Your task to perform on an android device: move a message to another label in the gmail app Image 0: 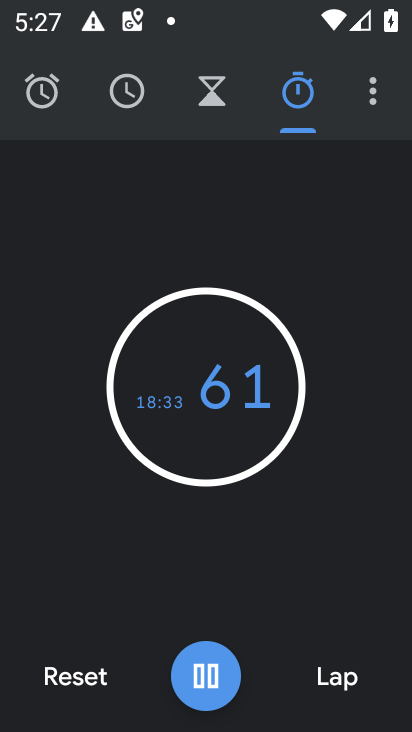
Step 0: press home button
Your task to perform on an android device: move a message to another label in the gmail app Image 1: 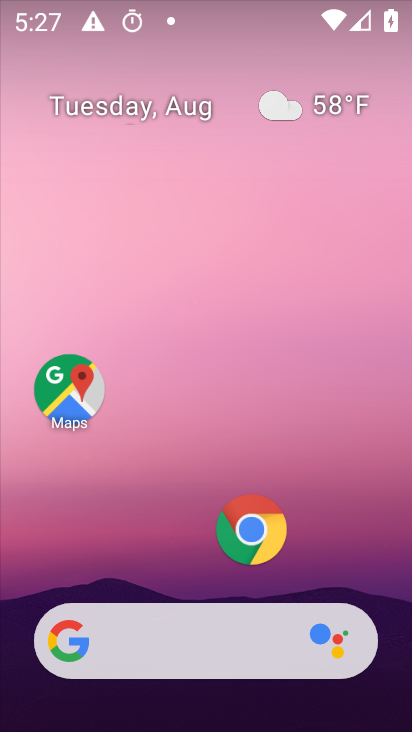
Step 1: drag from (187, 534) to (195, 180)
Your task to perform on an android device: move a message to another label in the gmail app Image 2: 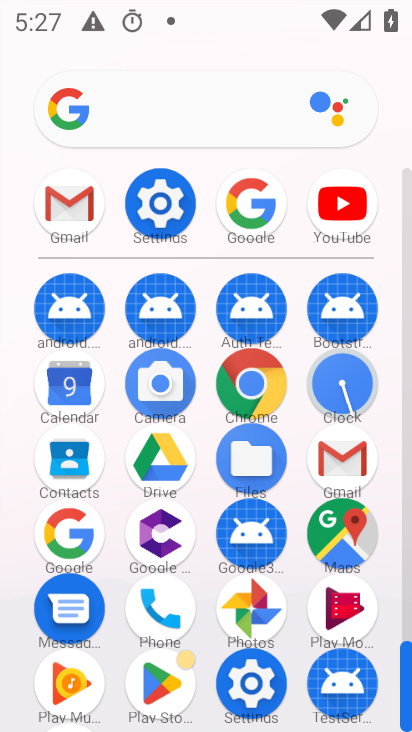
Step 2: click (53, 212)
Your task to perform on an android device: move a message to another label in the gmail app Image 3: 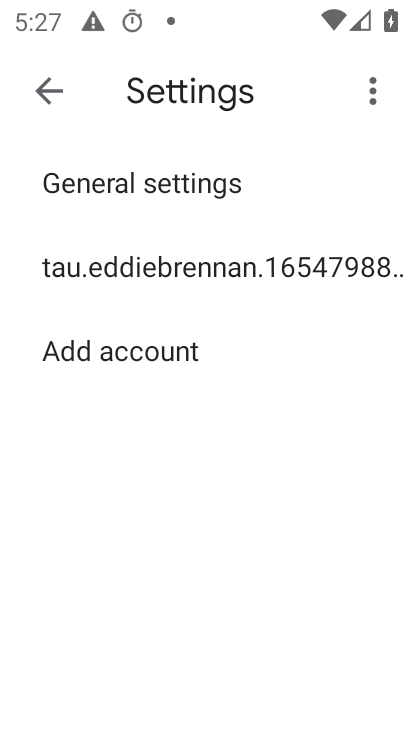
Step 3: click (44, 96)
Your task to perform on an android device: move a message to another label in the gmail app Image 4: 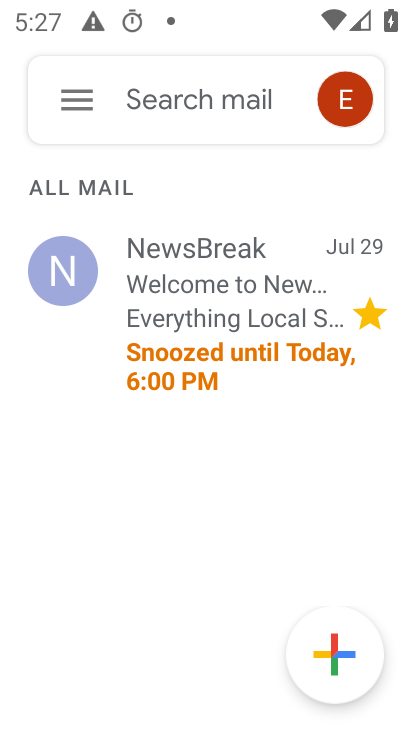
Step 4: click (167, 247)
Your task to perform on an android device: move a message to another label in the gmail app Image 5: 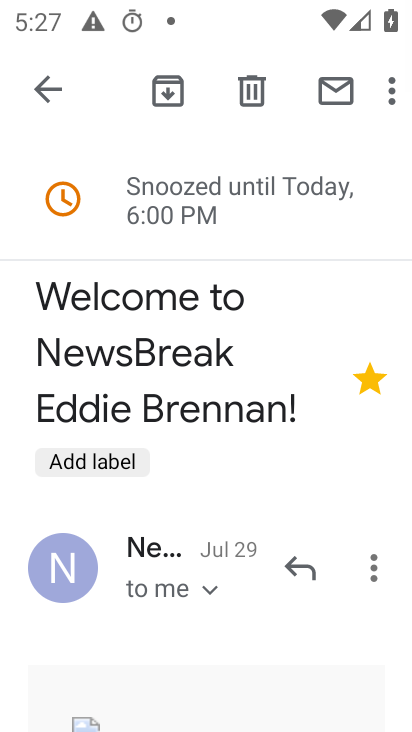
Step 5: click (389, 86)
Your task to perform on an android device: move a message to another label in the gmail app Image 6: 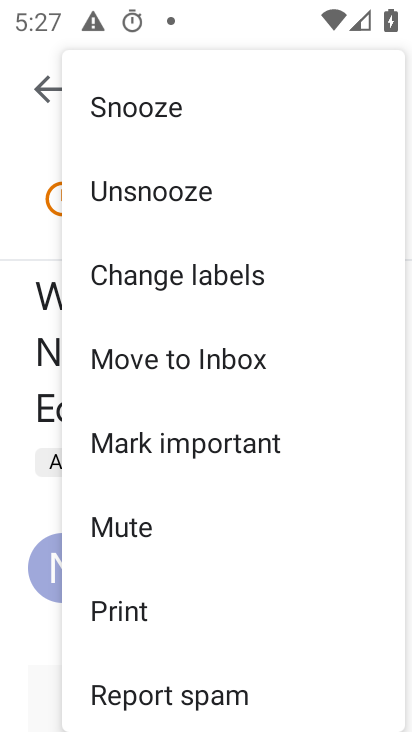
Step 6: click (195, 371)
Your task to perform on an android device: move a message to another label in the gmail app Image 7: 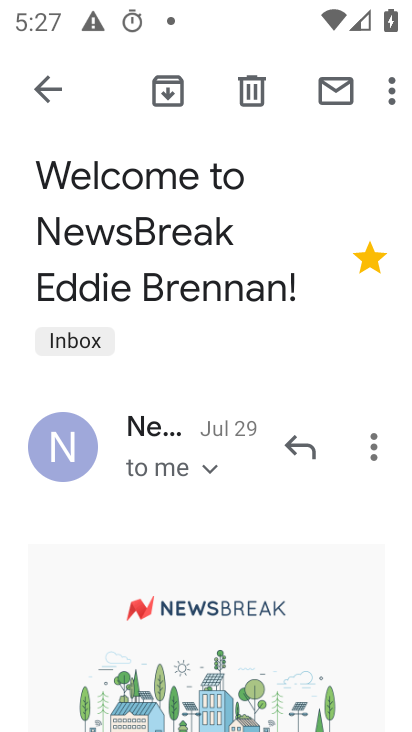
Step 7: task complete